Your task to perform on an android device: see creations saved in the google photos Image 0: 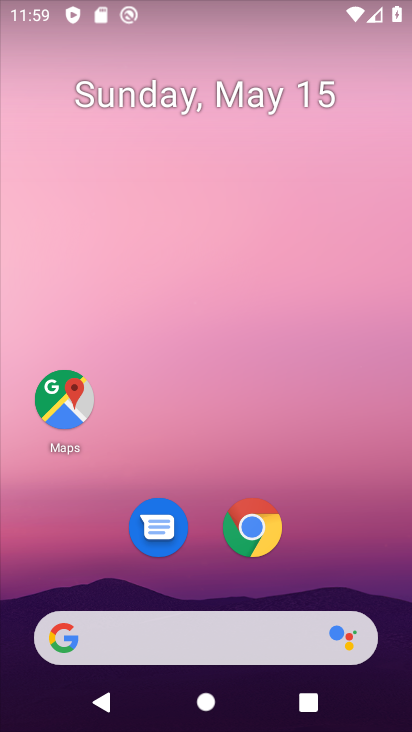
Step 0: drag from (203, 584) to (192, 16)
Your task to perform on an android device: see creations saved in the google photos Image 1: 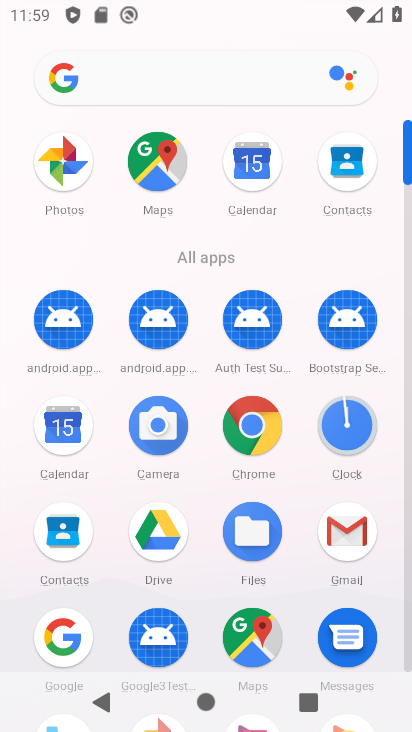
Step 1: drag from (222, 525) to (272, 123)
Your task to perform on an android device: see creations saved in the google photos Image 2: 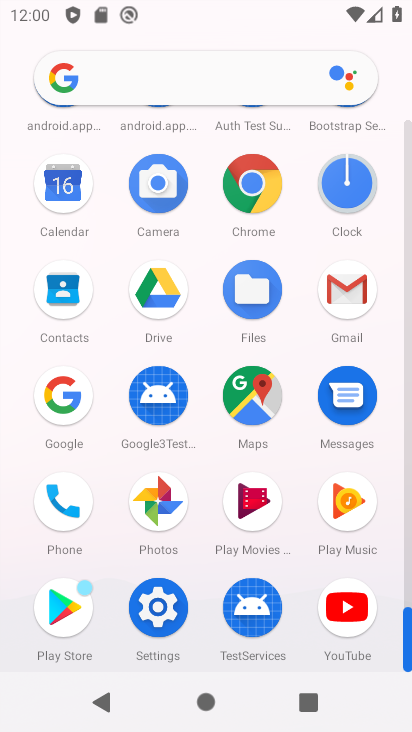
Step 2: click (153, 528)
Your task to perform on an android device: see creations saved in the google photos Image 3: 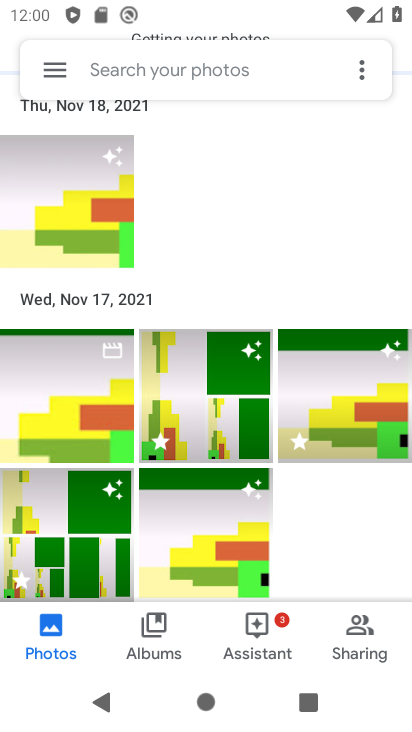
Step 3: click (218, 66)
Your task to perform on an android device: see creations saved in the google photos Image 4: 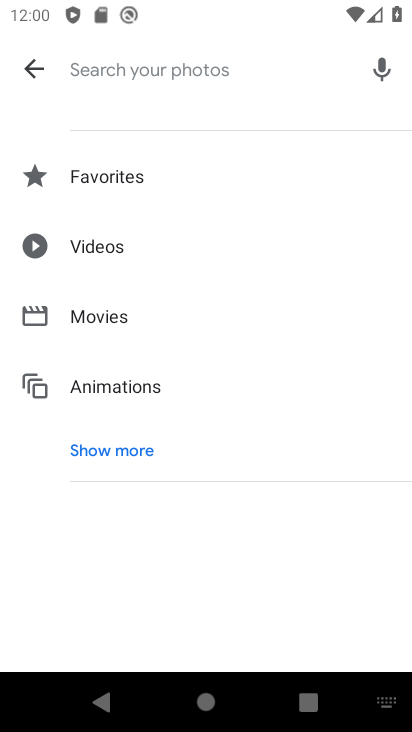
Step 4: type "creations"
Your task to perform on an android device: see creations saved in the google photos Image 5: 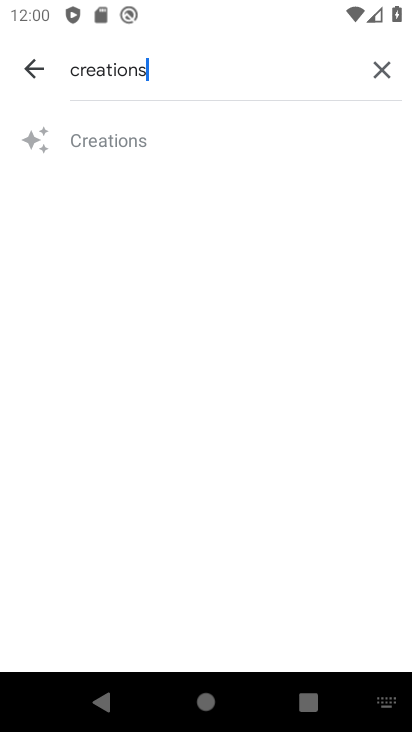
Step 5: click (163, 136)
Your task to perform on an android device: see creations saved in the google photos Image 6: 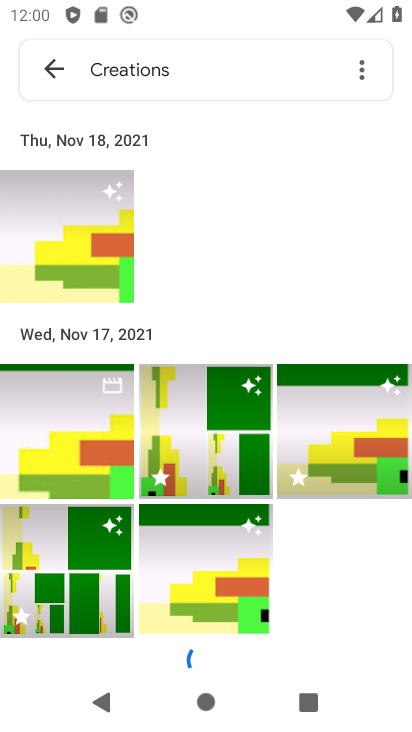
Step 6: task complete